Your task to perform on an android device: Go to battery settings Image 0: 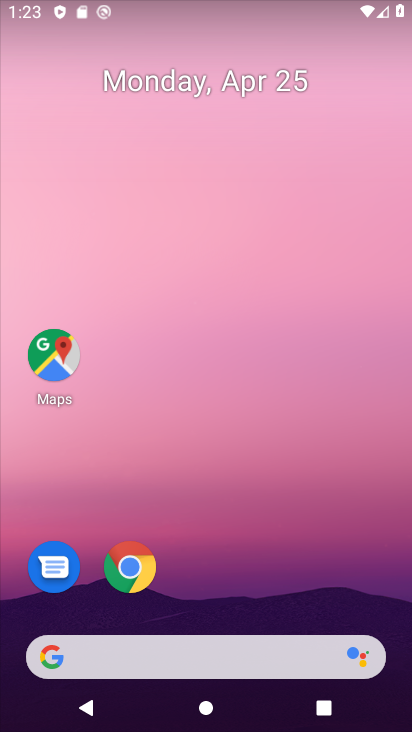
Step 0: drag from (318, 585) to (195, 8)
Your task to perform on an android device: Go to battery settings Image 1: 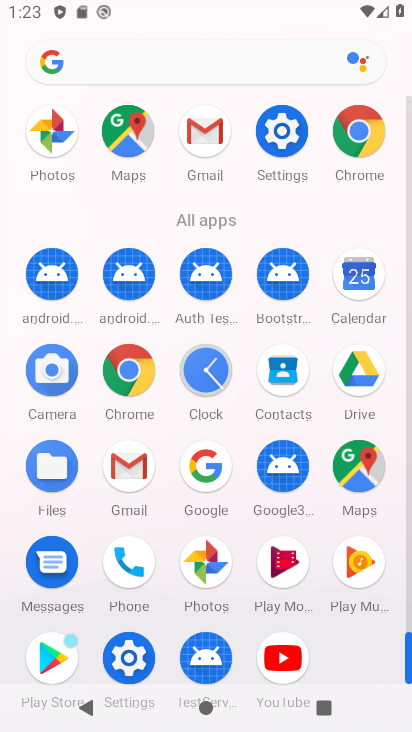
Step 1: click (280, 154)
Your task to perform on an android device: Go to battery settings Image 2: 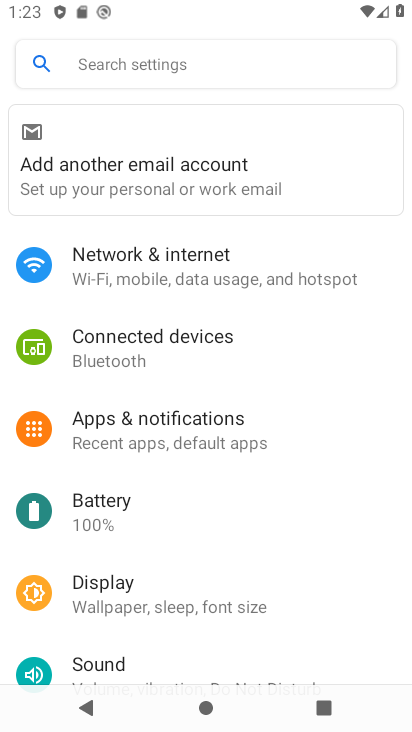
Step 2: click (110, 514)
Your task to perform on an android device: Go to battery settings Image 3: 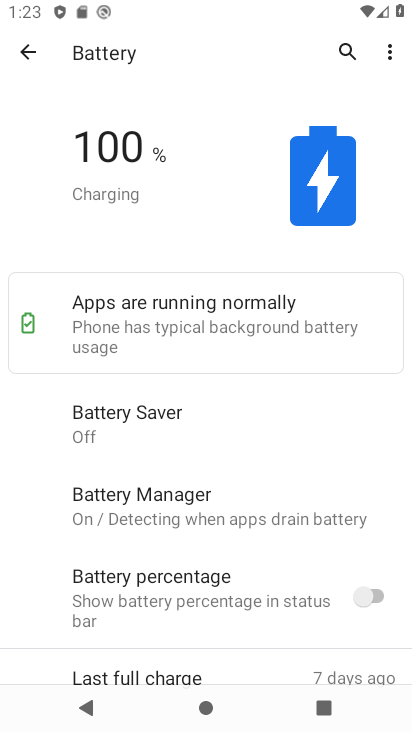
Step 3: task complete